Your task to perform on an android device: check the backup settings in the google photos Image 0: 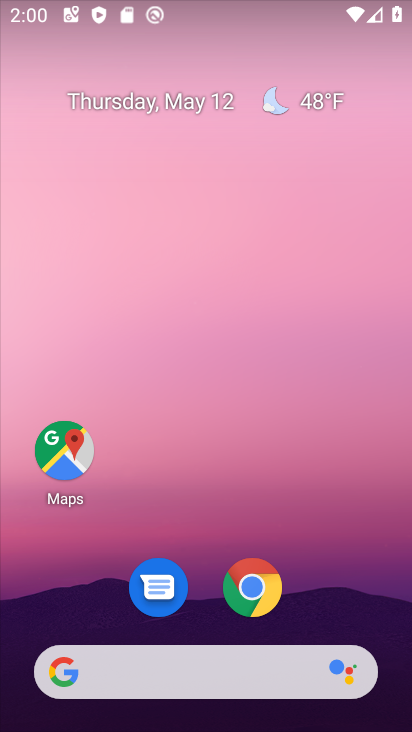
Step 0: click (214, 286)
Your task to perform on an android device: check the backup settings in the google photos Image 1: 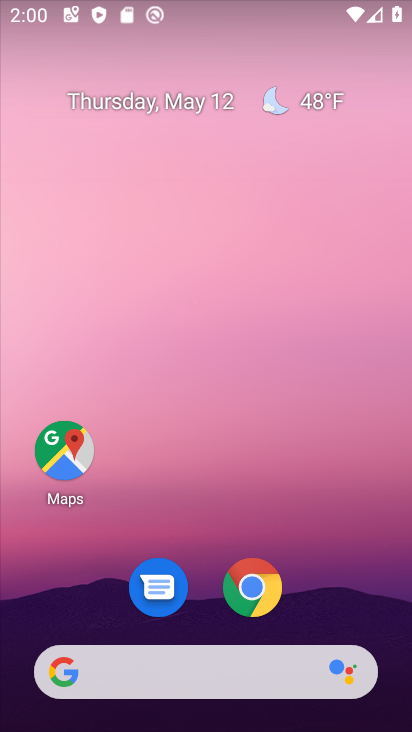
Step 1: drag from (201, 663) to (215, 237)
Your task to perform on an android device: check the backup settings in the google photos Image 2: 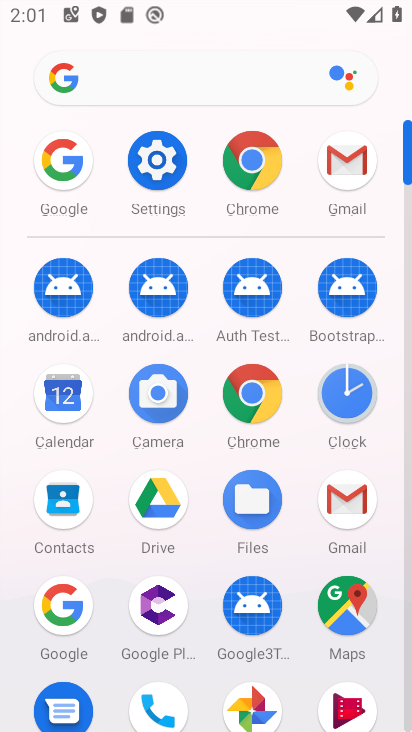
Step 2: drag from (258, 514) to (274, 303)
Your task to perform on an android device: check the backup settings in the google photos Image 3: 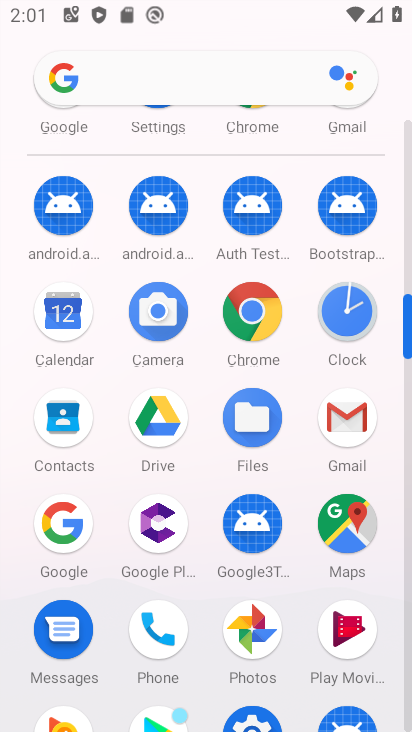
Step 3: click (259, 631)
Your task to perform on an android device: check the backup settings in the google photos Image 4: 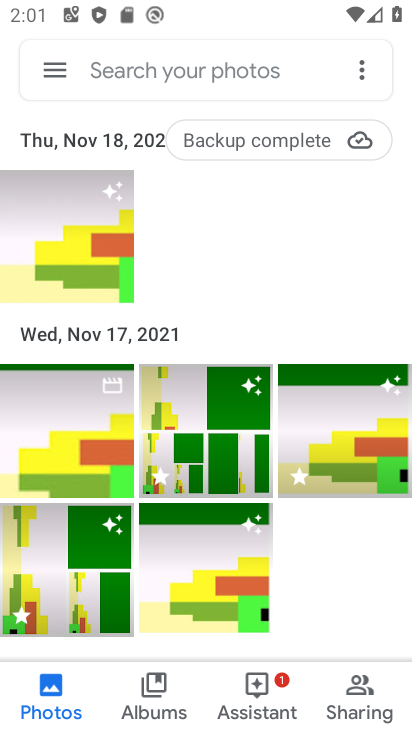
Step 4: click (47, 101)
Your task to perform on an android device: check the backup settings in the google photos Image 5: 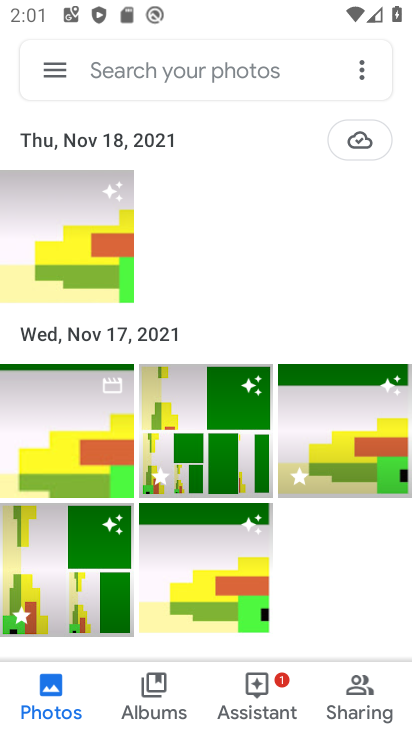
Step 5: click (56, 70)
Your task to perform on an android device: check the backup settings in the google photos Image 6: 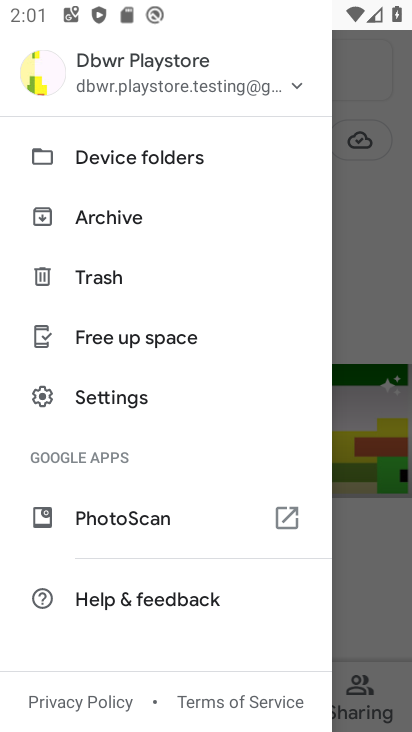
Step 6: click (133, 399)
Your task to perform on an android device: check the backup settings in the google photos Image 7: 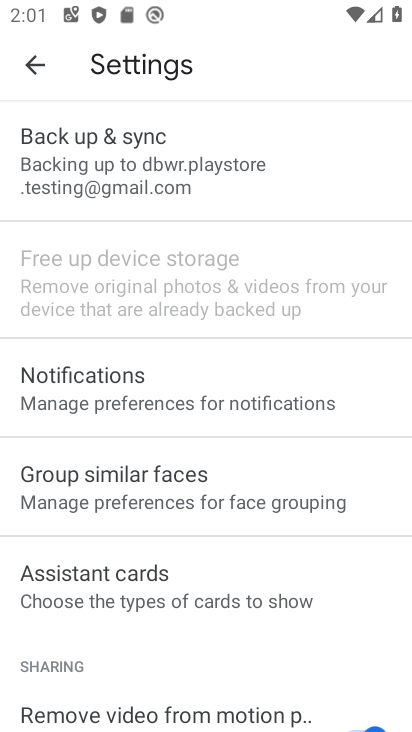
Step 7: click (212, 156)
Your task to perform on an android device: check the backup settings in the google photos Image 8: 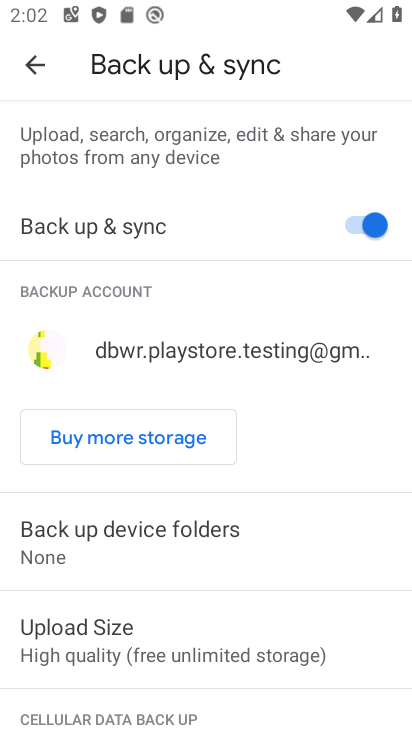
Step 8: task complete